Your task to perform on an android device: What's the weather today? Image 0: 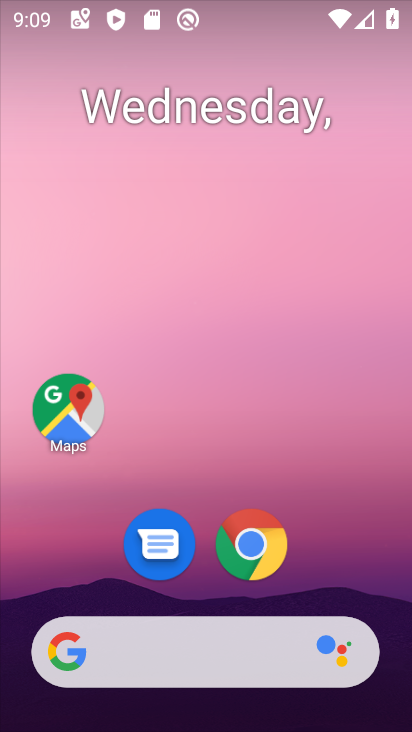
Step 0: click (192, 641)
Your task to perform on an android device: What's the weather today? Image 1: 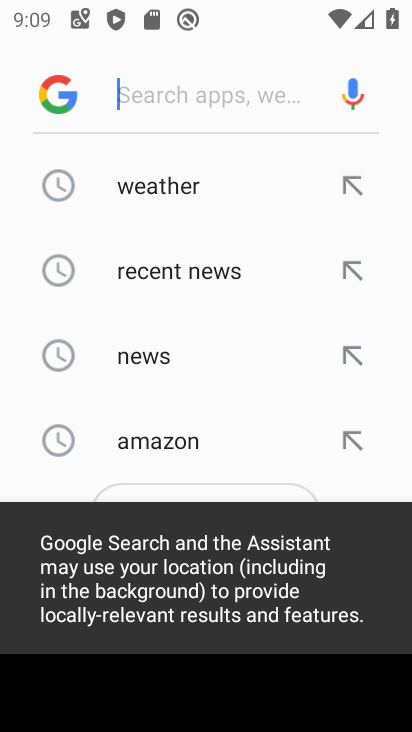
Step 1: click (223, 197)
Your task to perform on an android device: What's the weather today? Image 2: 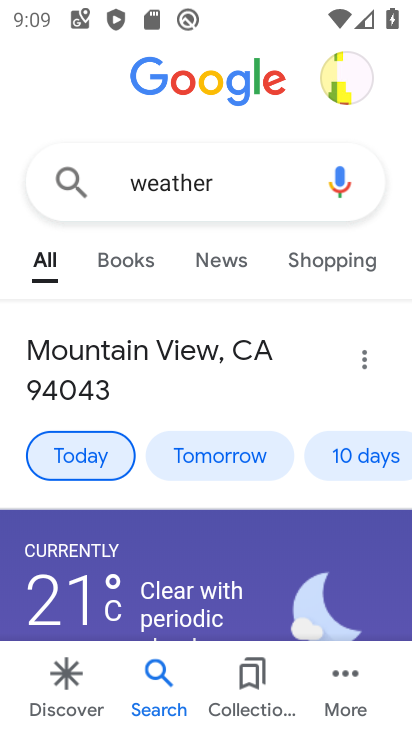
Step 2: task complete